Your task to perform on an android device: uninstall "Contacts" Image 0: 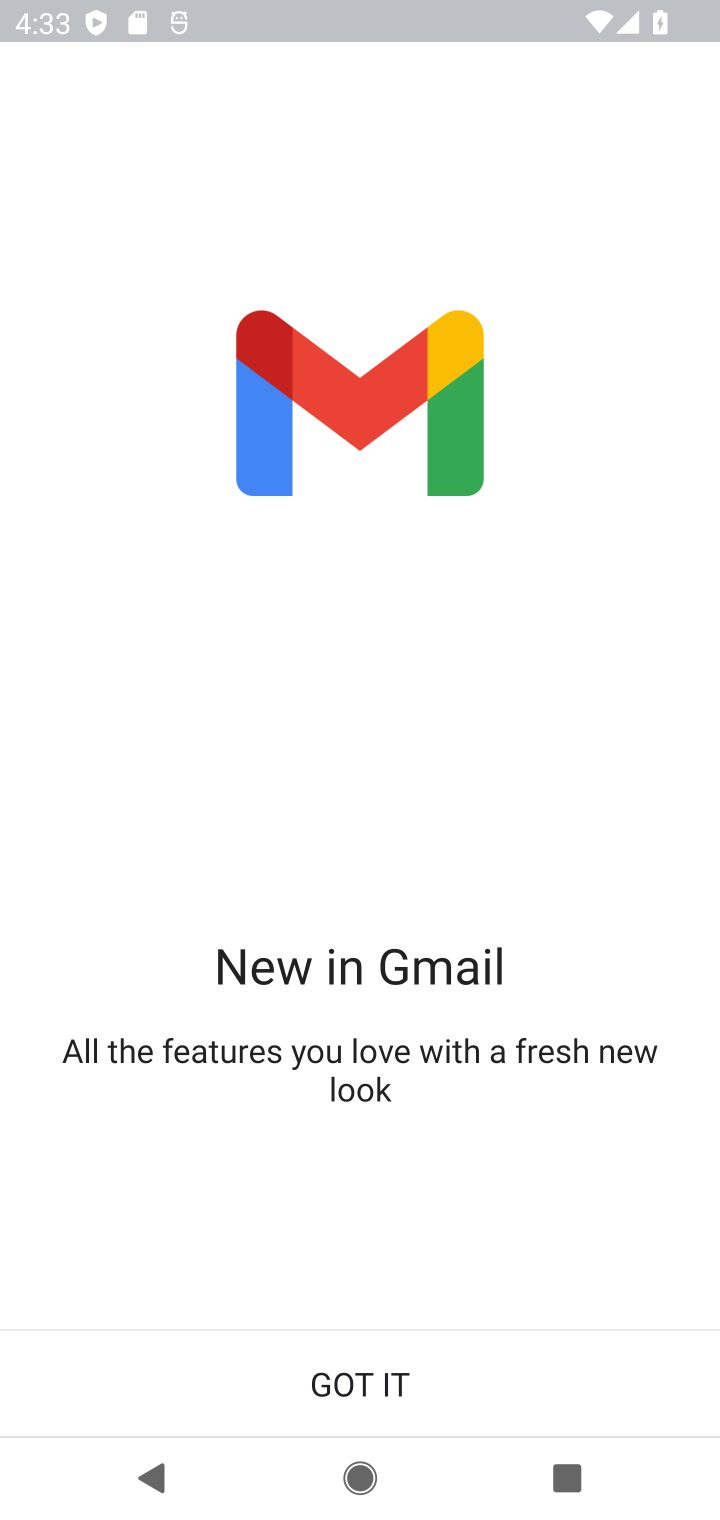
Step 0: press home button
Your task to perform on an android device: uninstall "Contacts" Image 1: 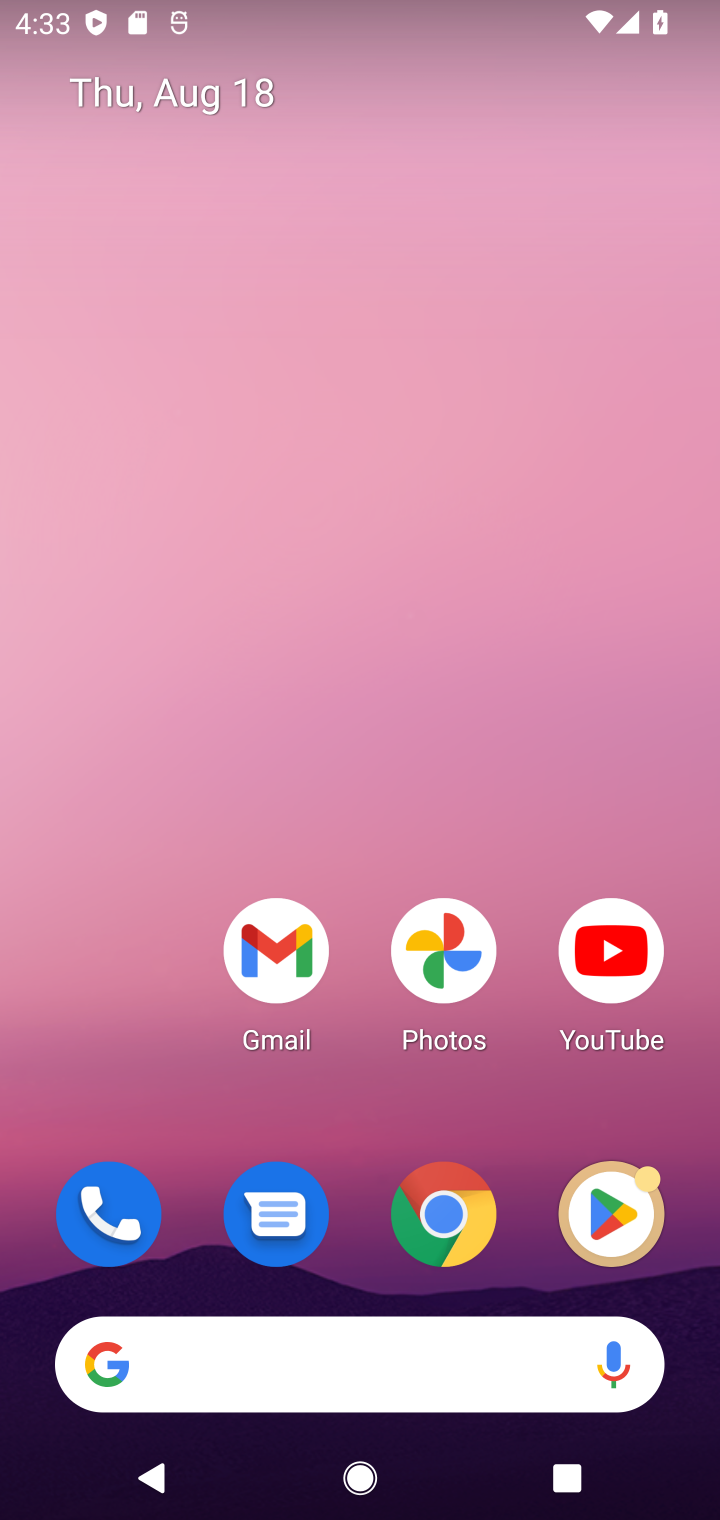
Step 1: drag from (293, 1103) to (414, 5)
Your task to perform on an android device: uninstall "Contacts" Image 2: 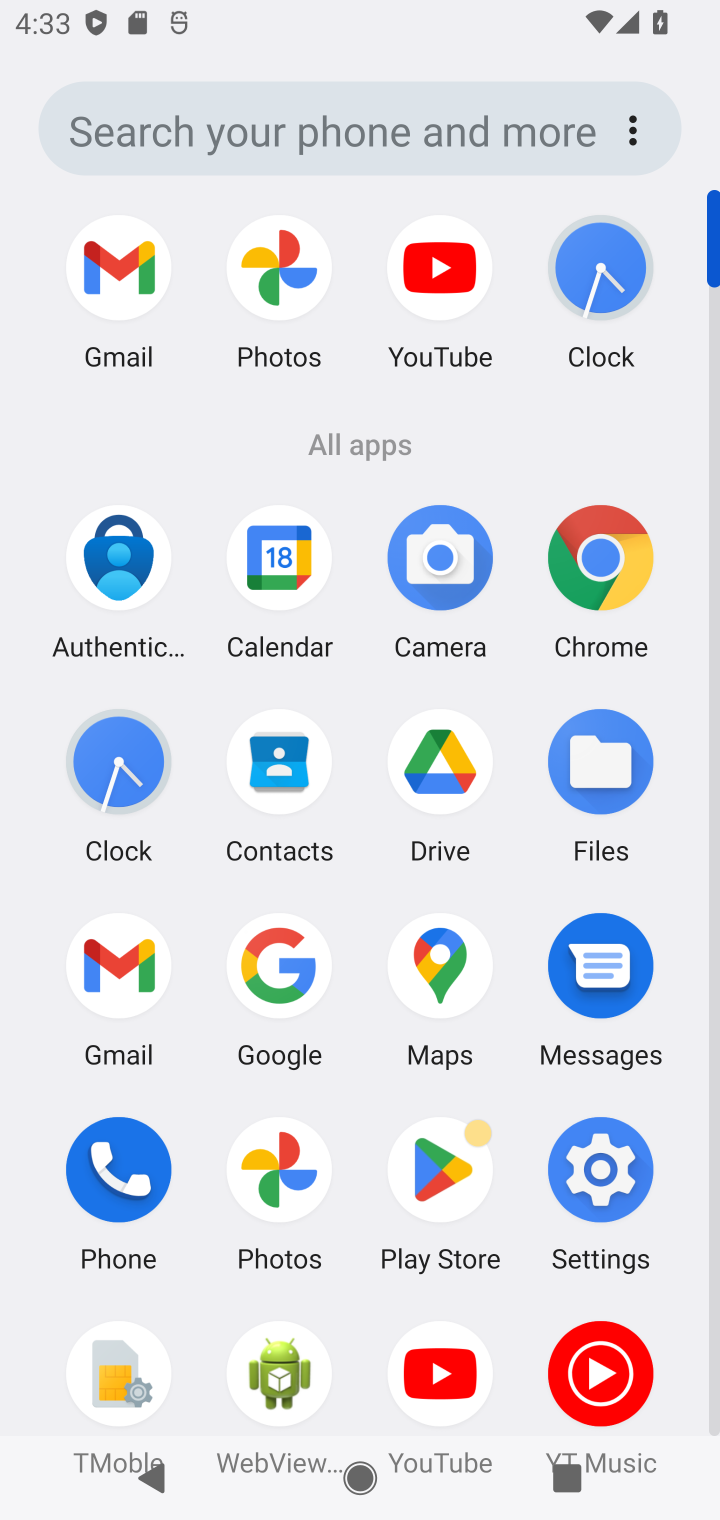
Step 2: click (445, 1212)
Your task to perform on an android device: uninstall "Contacts" Image 3: 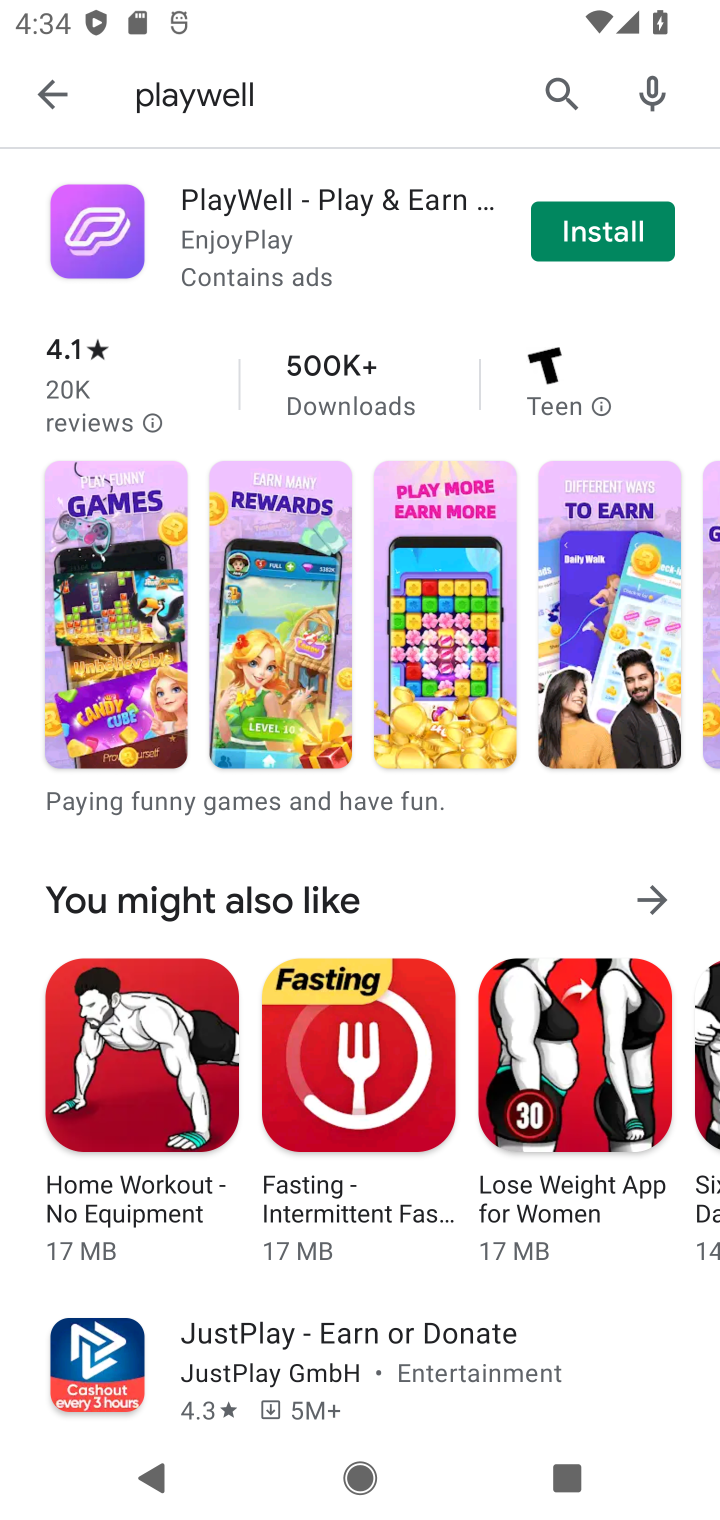
Step 3: click (234, 105)
Your task to perform on an android device: uninstall "Contacts" Image 4: 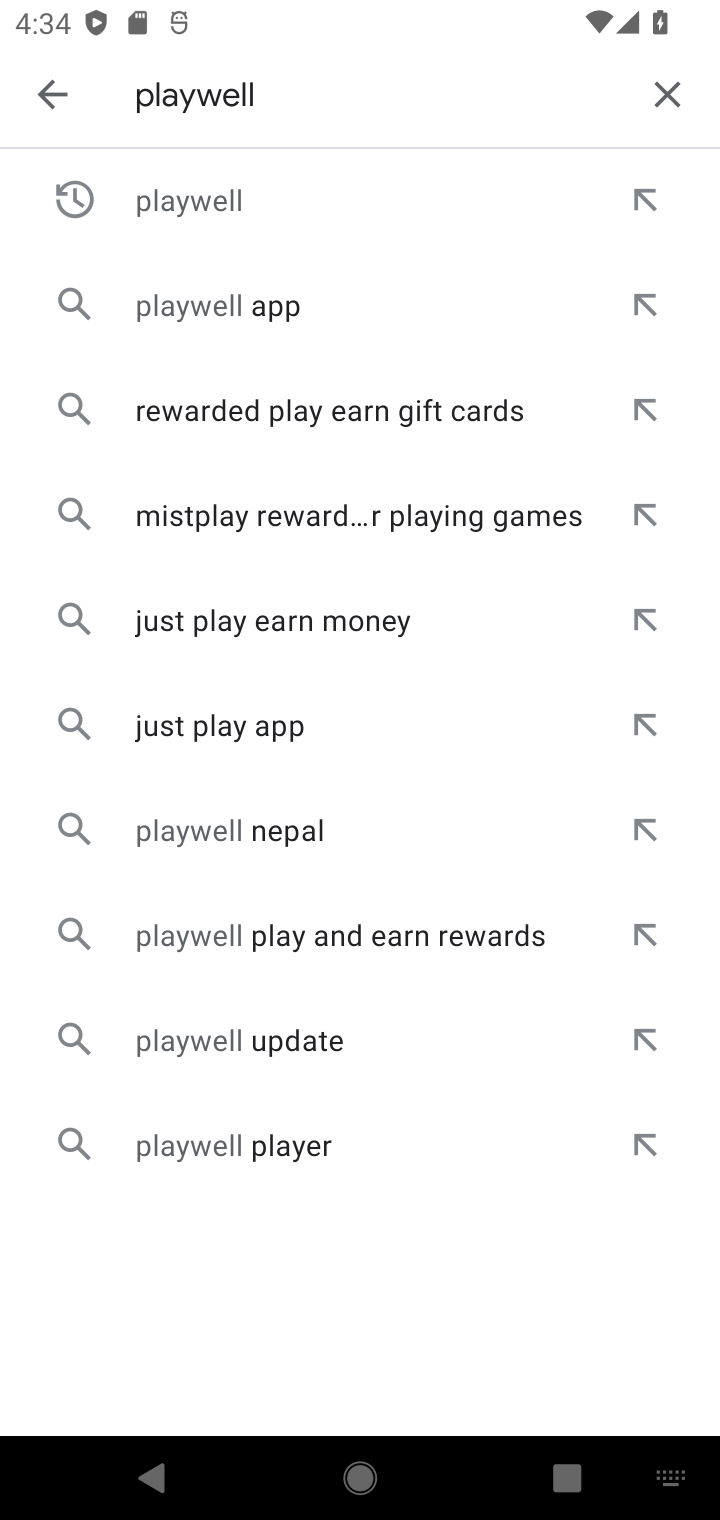
Step 4: click (656, 62)
Your task to perform on an android device: uninstall "Contacts" Image 5: 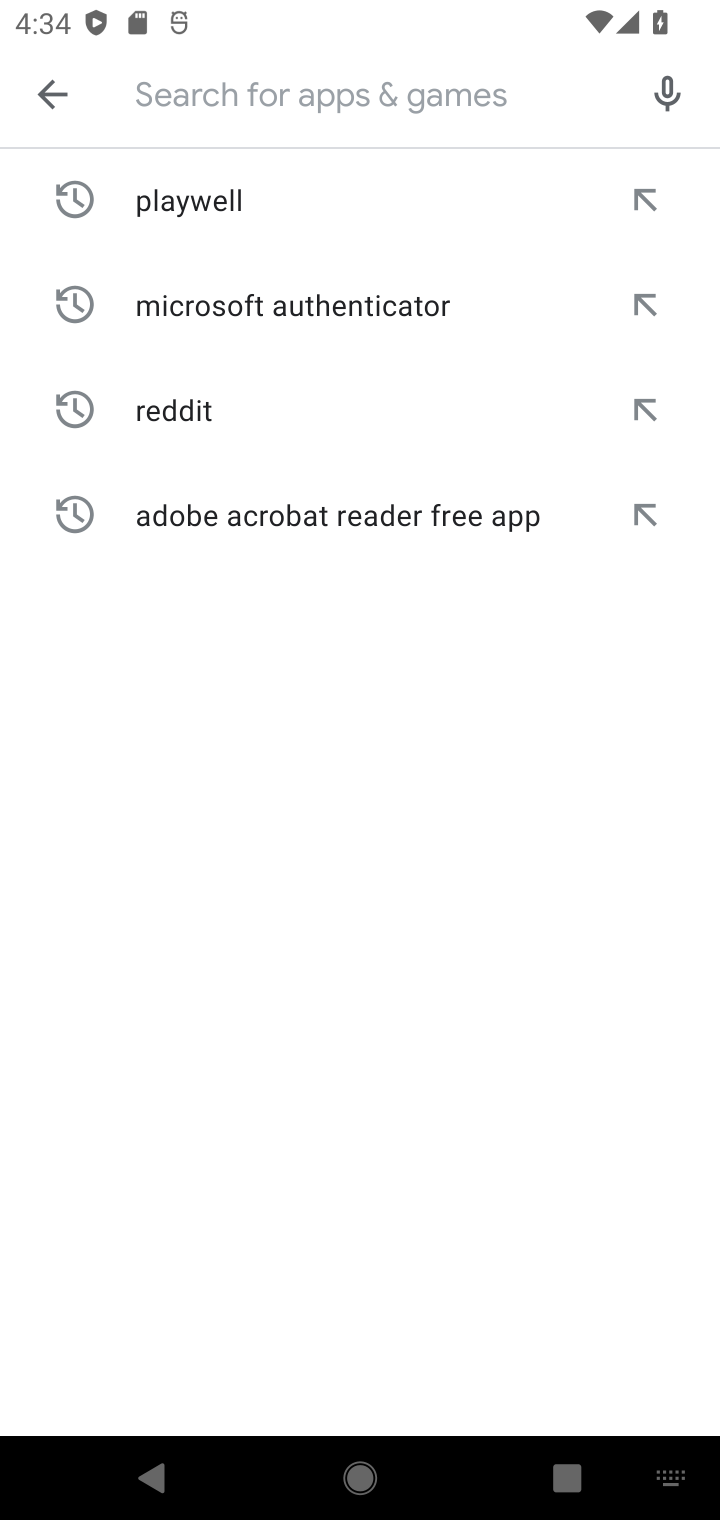
Step 5: type "contacts"
Your task to perform on an android device: uninstall "Contacts" Image 6: 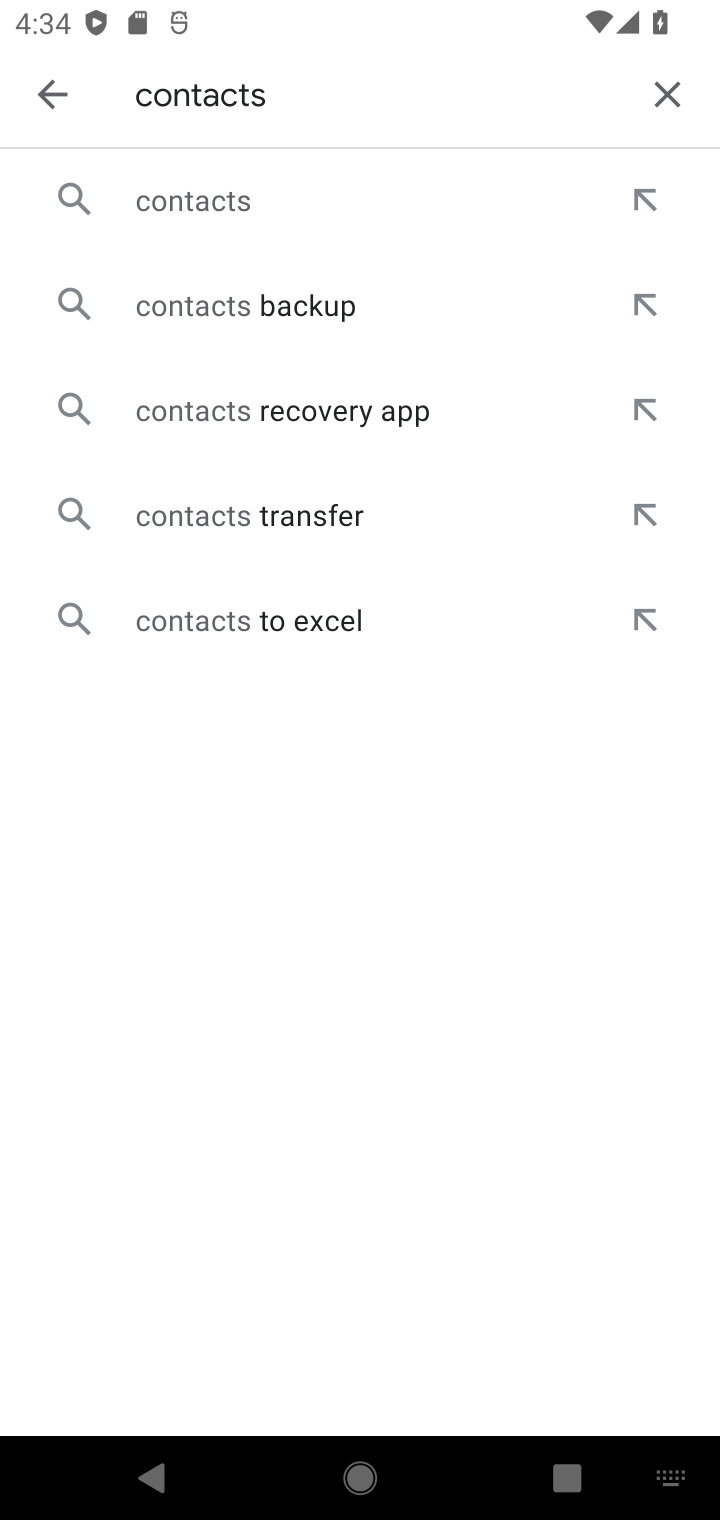
Step 6: click (296, 184)
Your task to perform on an android device: uninstall "Contacts" Image 7: 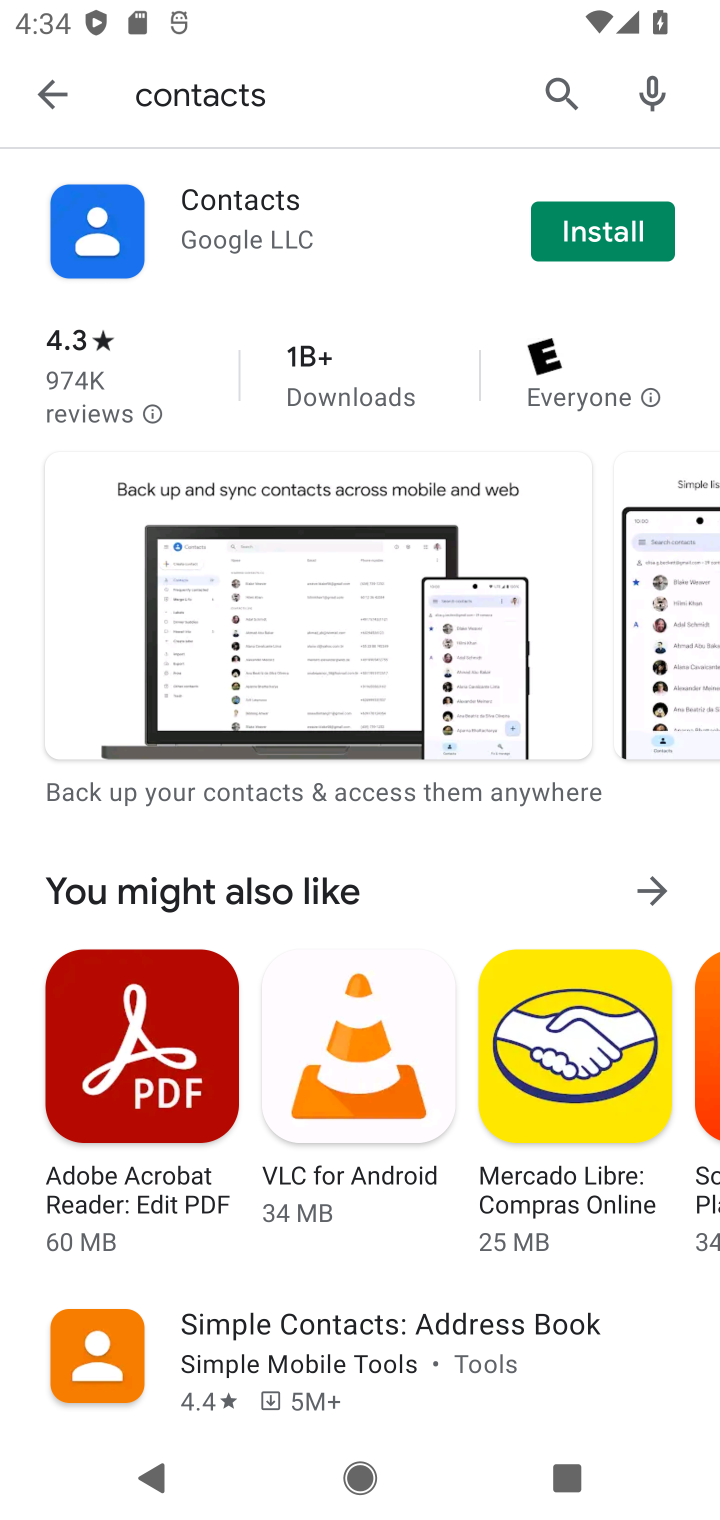
Step 7: task complete